Your task to perform on an android device: find photos in the google photos app Image 0: 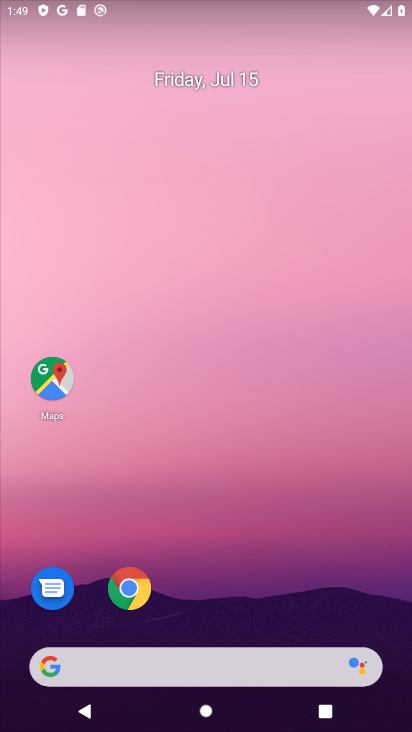
Step 0: drag from (327, 612) to (306, 150)
Your task to perform on an android device: find photos in the google photos app Image 1: 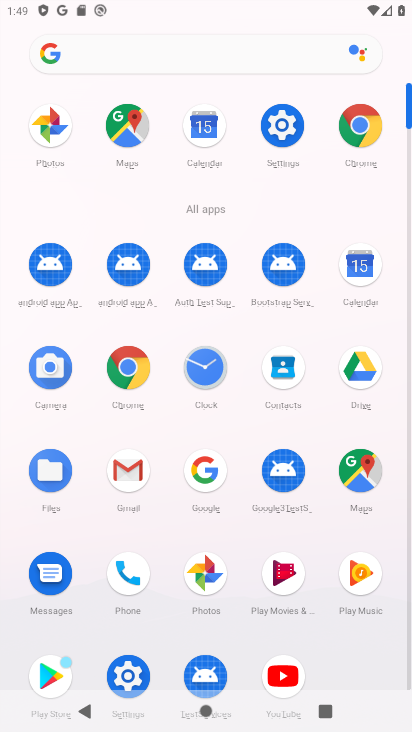
Step 1: click (208, 562)
Your task to perform on an android device: find photos in the google photos app Image 2: 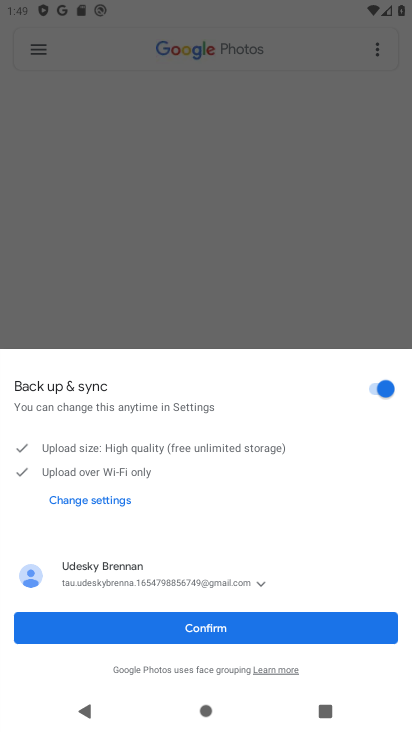
Step 2: click (184, 610)
Your task to perform on an android device: find photos in the google photos app Image 3: 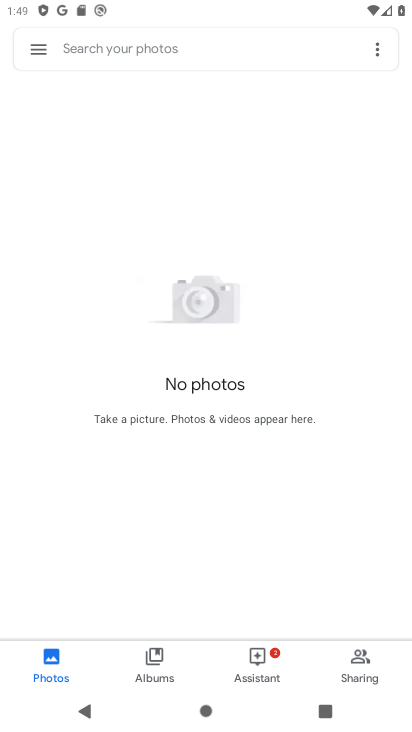
Step 3: task complete